Your task to perform on an android device: turn on data saver in the chrome app Image 0: 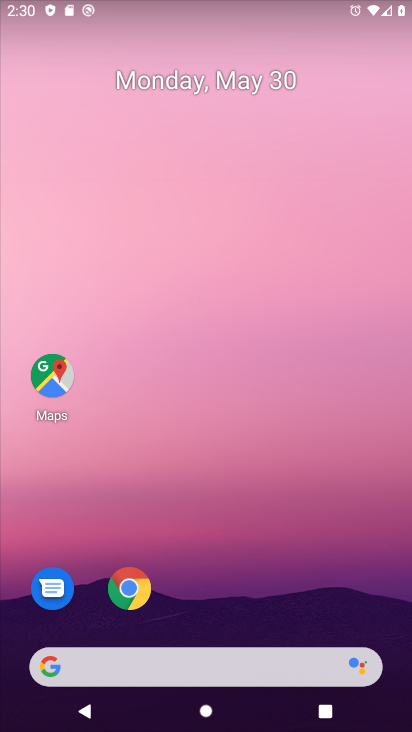
Step 0: click (145, 583)
Your task to perform on an android device: turn on data saver in the chrome app Image 1: 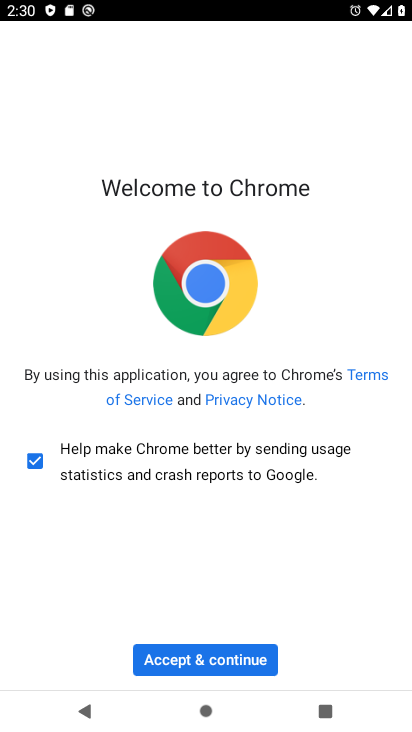
Step 1: click (230, 656)
Your task to perform on an android device: turn on data saver in the chrome app Image 2: 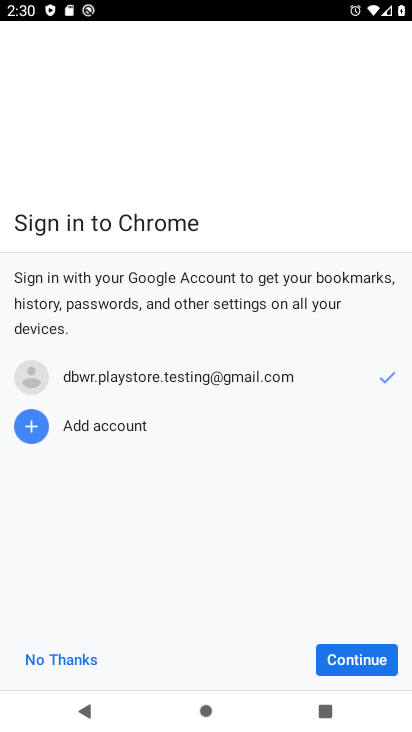
Step 2: click (346, 664)
Your task to perform on an android device: turn on data saver in the chrome app Image 3: 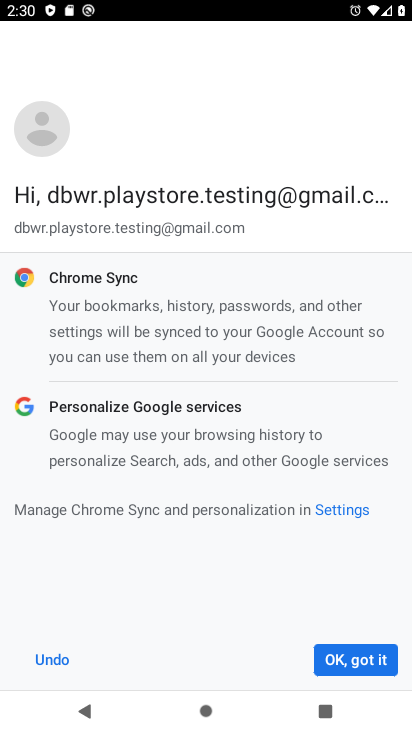
Step 3: click (352, 666)
Your task to perform on an android device: turn on data saver in the chrome app Image 4: 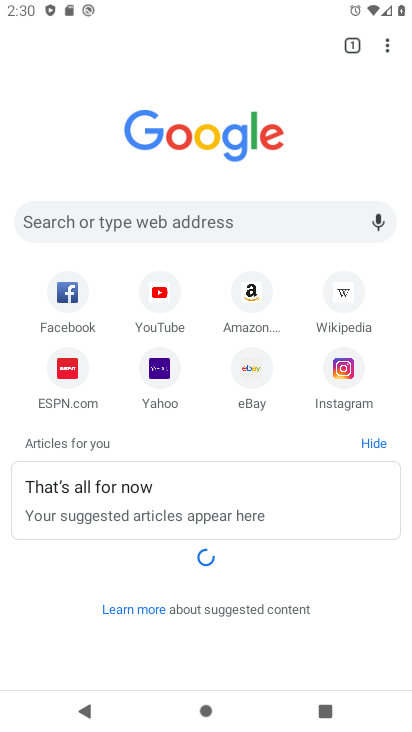
Step 4: click (387, 41)
Your task to perform on an android device: turn on data saver in the chrome app Image 5: 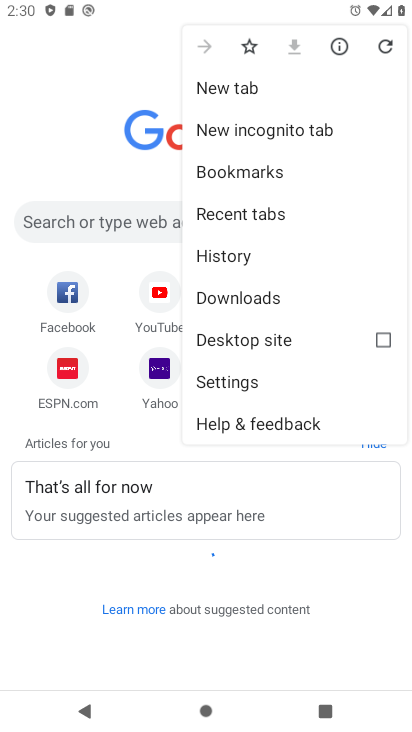
Step 5: click (259, 381)
Your task to perform on an android device: turn on data saver in the chrome app Image 6: 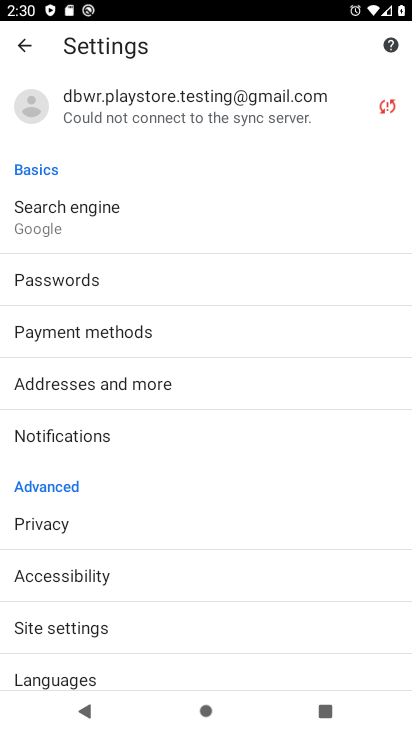
Step 6: drag from (149, 643) to (151, 376)
Your task to perform on an android device: turn on data saver in the chrome app Image 7: 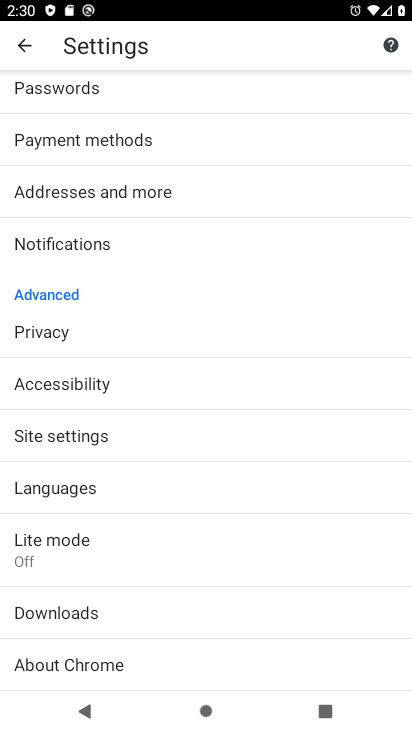
Step 7: click (156, 548)
Your task to perform on an android device: turn on data saver in the chrome app Image 8: 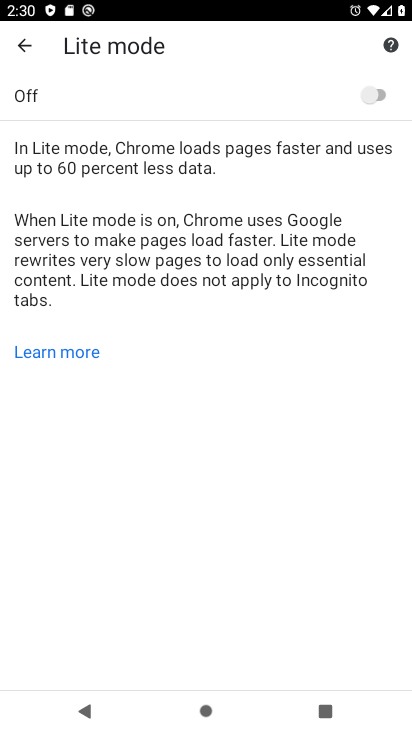
Step 8: click (372, 84)
Your task to perform on an android device: turn on data saver in the chrome app Image 9: 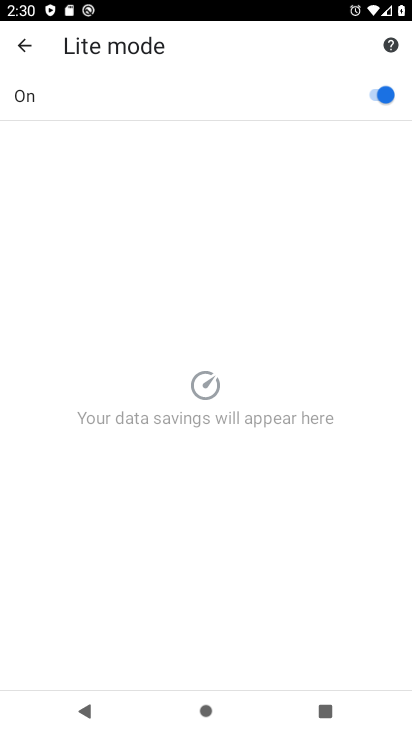
Step 9: task complete